Your task to perform on an android device: refresh tabs in the chrome app Image 0: 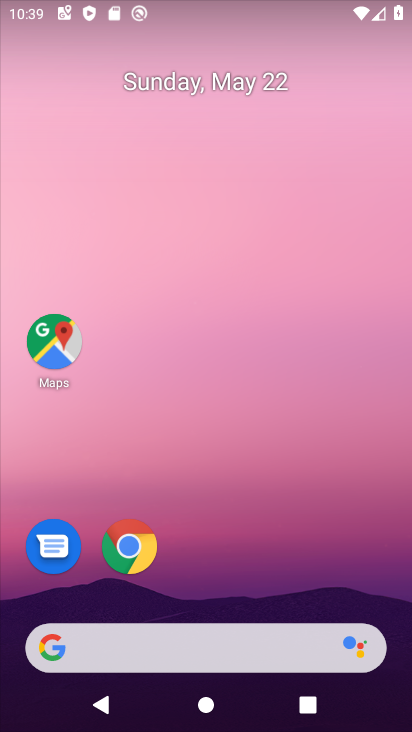
Step 0: click (125, 544)
Your task to perform on an android device: refresh tabs in the chrome app Image 1: 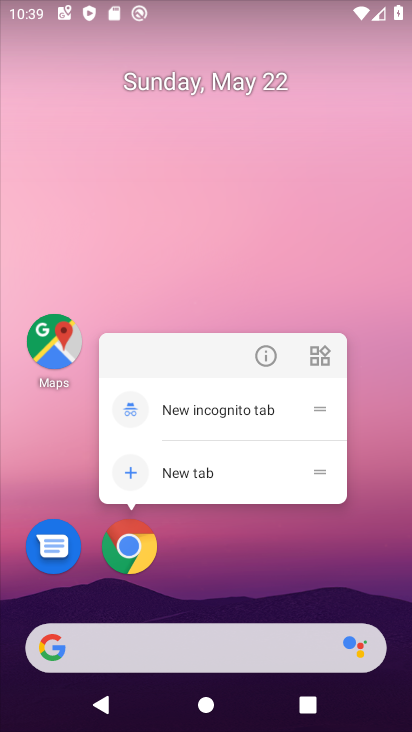
Step 1: click (132, 554)
Your task to perform on an android device: refresh tabs in the chrome app Image 2: 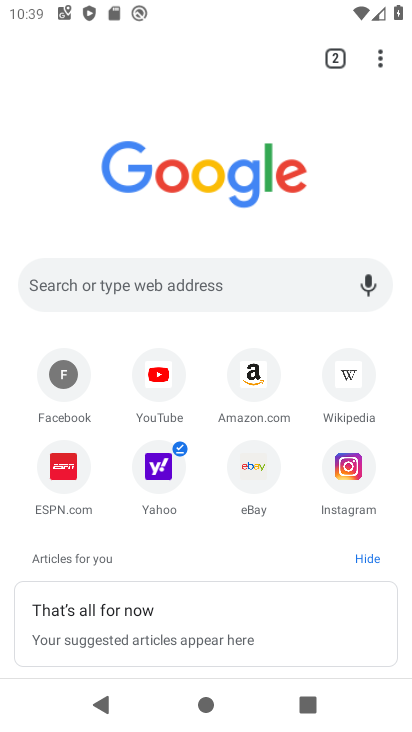
Step 2: click (382, 66)
Your task to perform on an android device: refresh tabs in the chrome app Image 3: 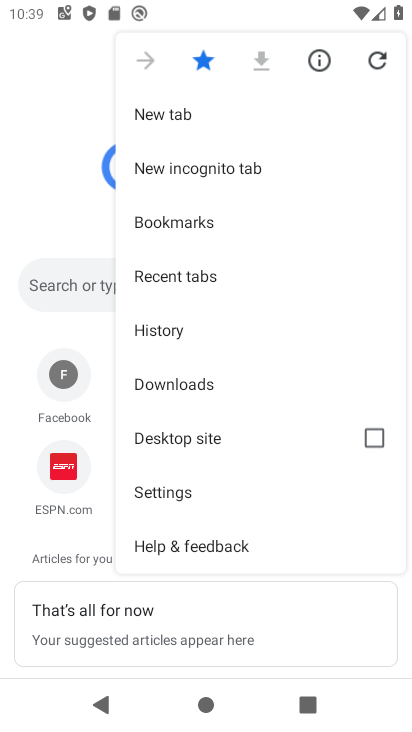
Step 3: click (376, 53)
Your task to perform on an android device: refresh tabs in the chrome app Image 4: 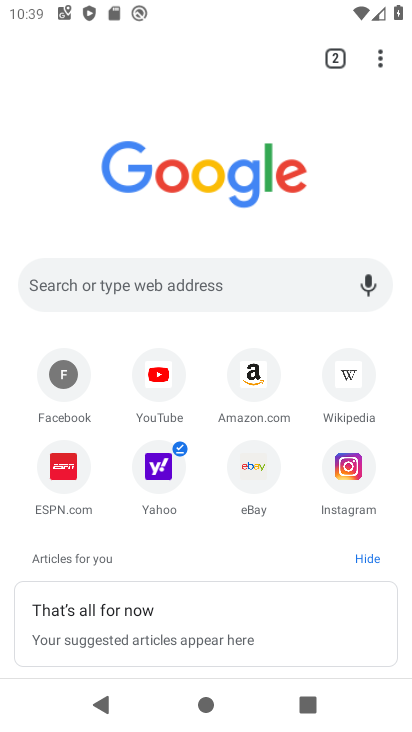
Step 4: task complete